Your task to perform on an android device: What's the weather today? Image 0: 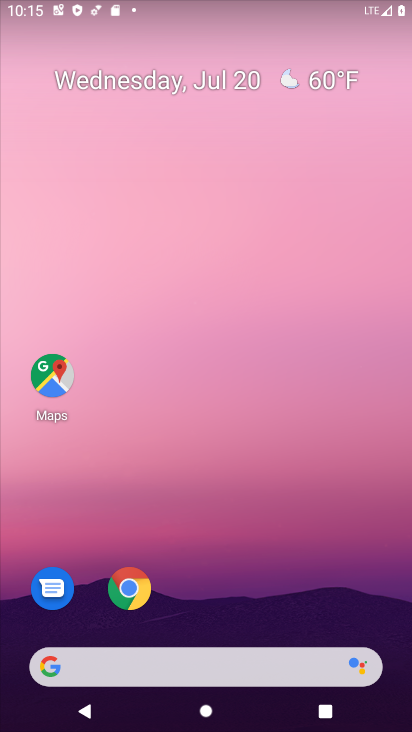
Step 0: click (315, 84)
Your task to perform on an android device: What's the weather today? Image 1: 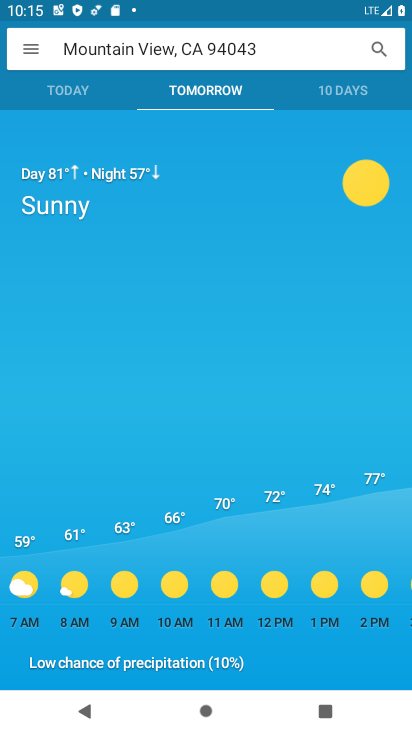
Step 1: click (74, 101)
Your task to perform on an android device: What's the weather today? Image 2: 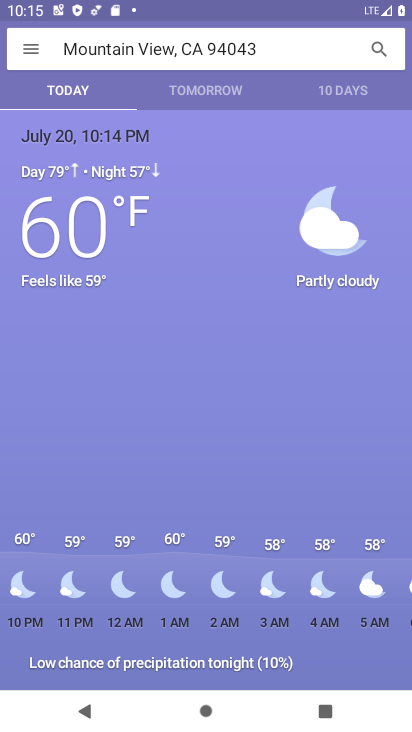
Step 2: task complete